Your task to perform on an android device: turn on showing notifications on the lock screen Image 0: 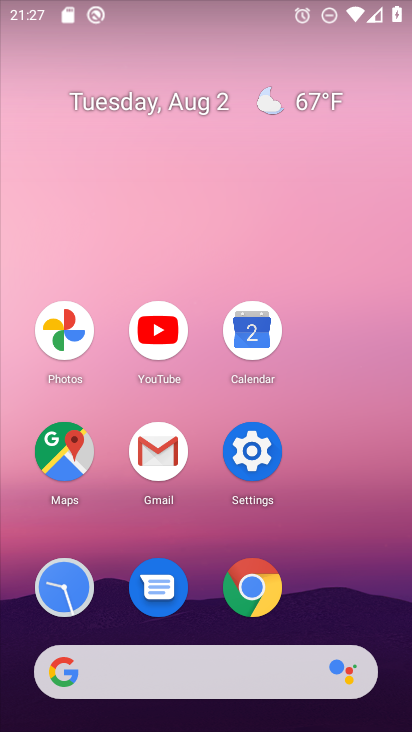
Step 0: click (250, 452)
Your task to perform on an android device: turn on showing notifications on the lock screen Image 1: 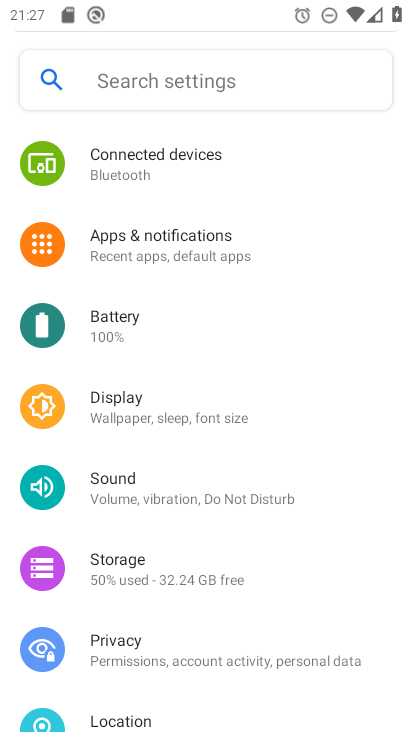
Step 1: click (171, 233)
Your task to perform on an android device: turn on showing notifications on the lock screen Image 2: 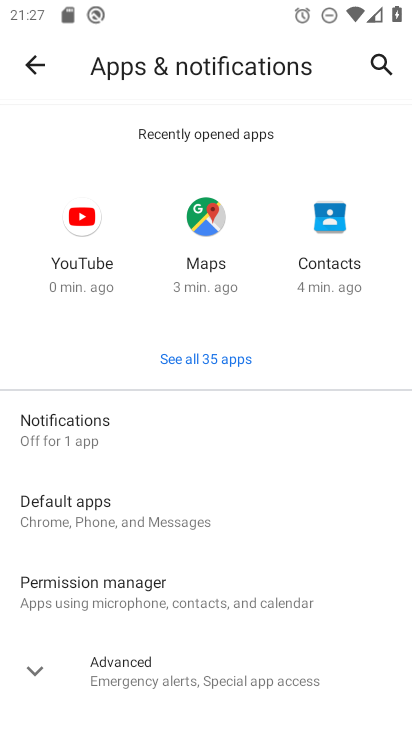
Step 2: click (79, 420)
Your task to perform on an android device: turn on showing notifications on the lock screen Image 3: 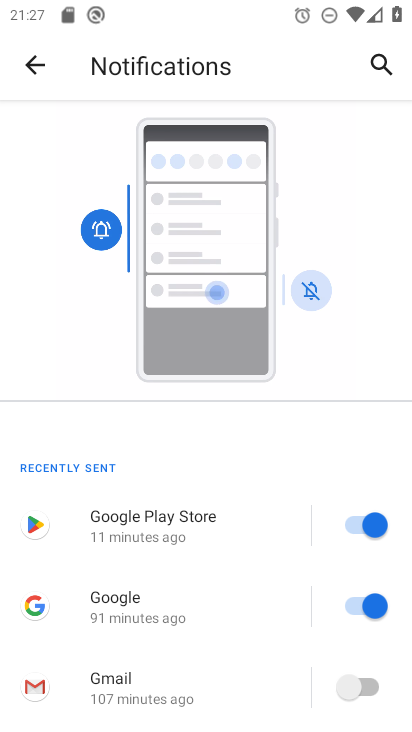
Step 3: drag from (248, 561) to (170, 107)
Your task to perform on an android device: turn on showing notifications on the lock screen Image 4: 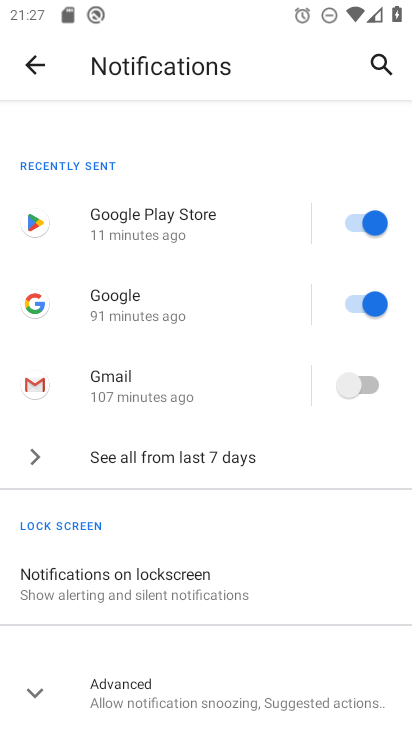
Step 4: click (156, 568)
Your task to perform on an android device: turn on showing notifications on the lock screen Image 5: 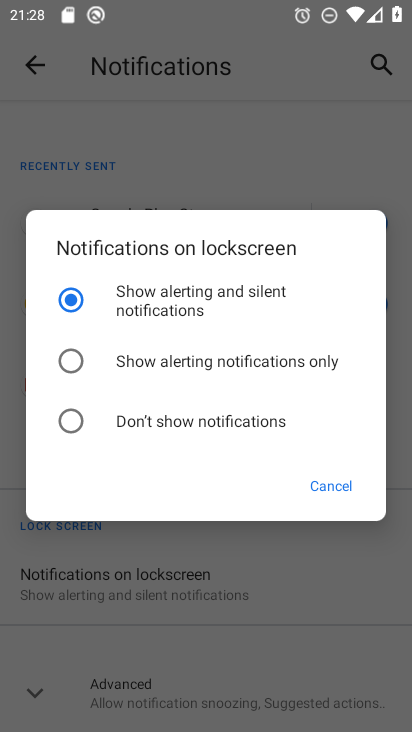
Step 5: task complete